Your task to perform on an android device: change the upload size in google photos Image 0: 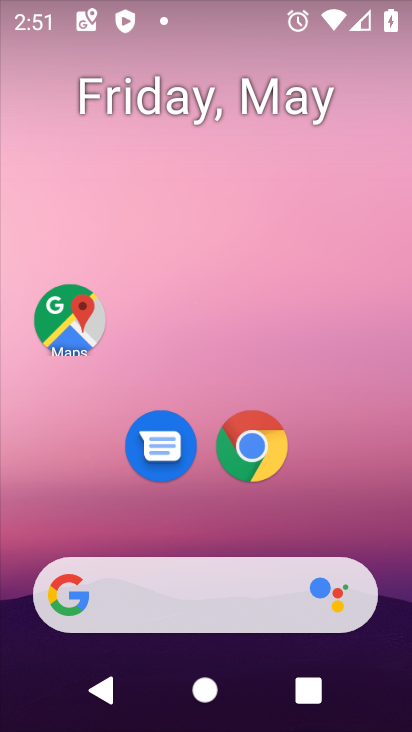
Step 0: drag from (403, 574) to (317, 160)
Your task to perform on an android device: change the upload size in google photos Image 1: 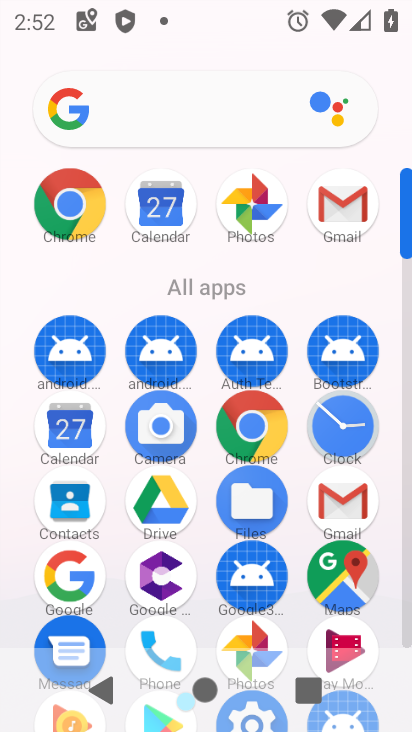
Step 1: click (256, 209)
Your task to perform on an android device: change the upload size in google photos Image 2: 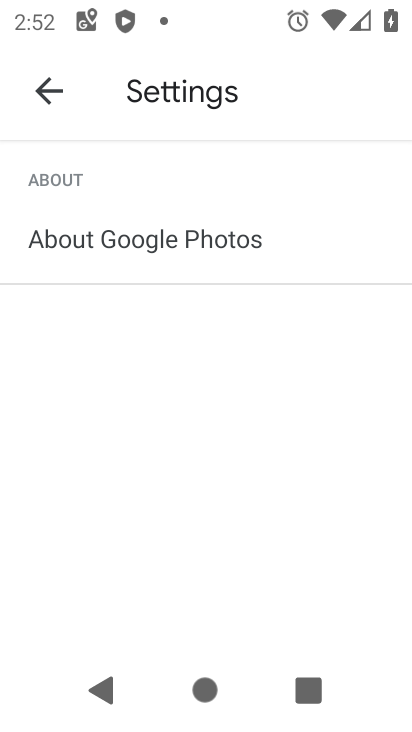
Step 2: click (62, 105)
Your task to perform on an android device: change the upload size in google photos Image 3: 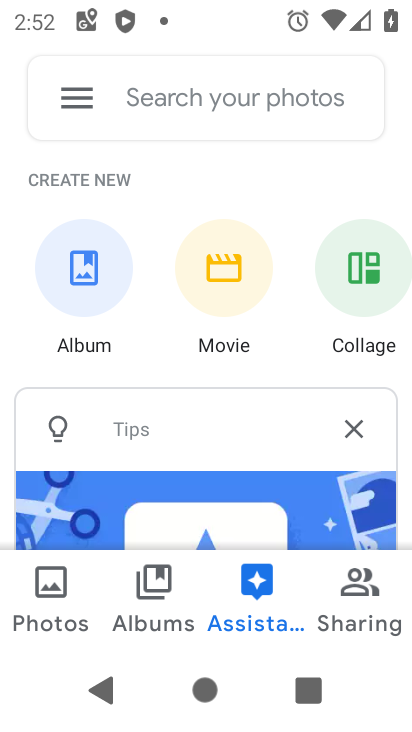
Step 3: click (88, 102)
Your task to perform on an android device: change the upload size in google photos Image 4: 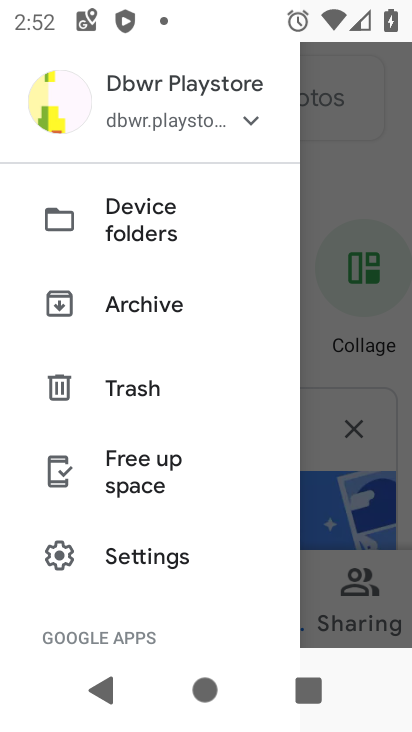
Step 4: click (146, 554)
Your task to perform on an android device: change the upload size in google photos Image 5: 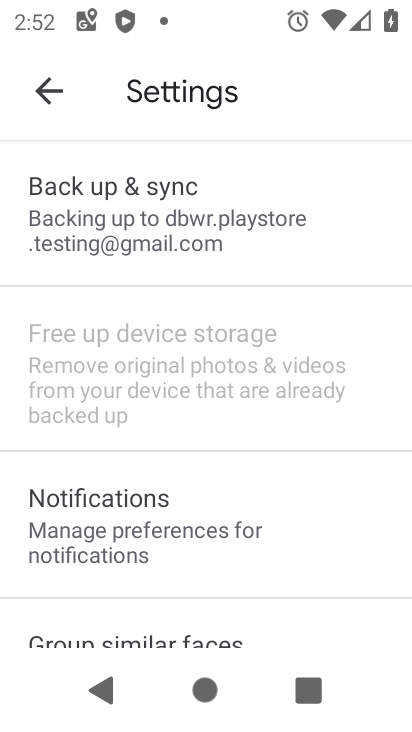
Step 5: drag from (215, 579) to (159, 697)
Your task to perform on an android device: change the upload size in google photos Image 6: 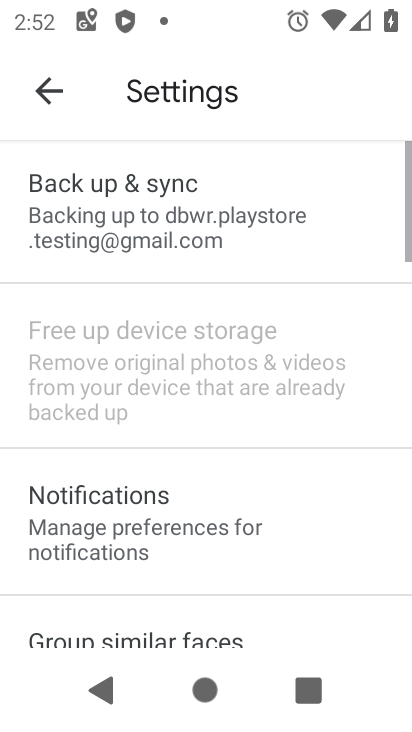
Step 6: click (205, 253)
Your task to perform on an android device: change the upload size in google photos Image 7: 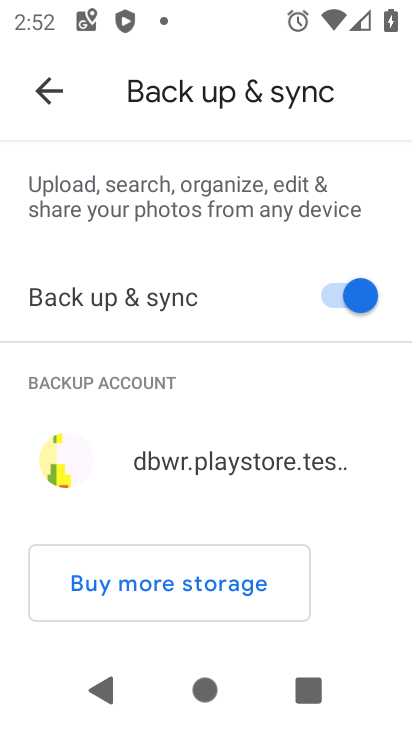
Step 7: drag from (340, 584) to (263, 219)
Your task to perform on an android device: change the upload size in google photos Image 8: 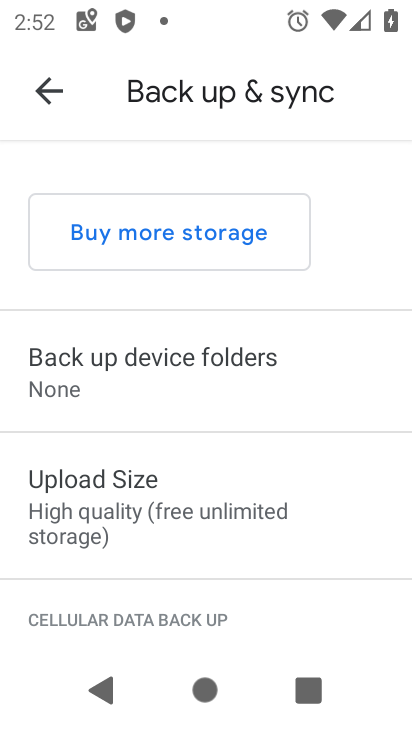
Step 8: click (229, 480)
Your task to perform on an android device: change the upload size in google photos Image 9: 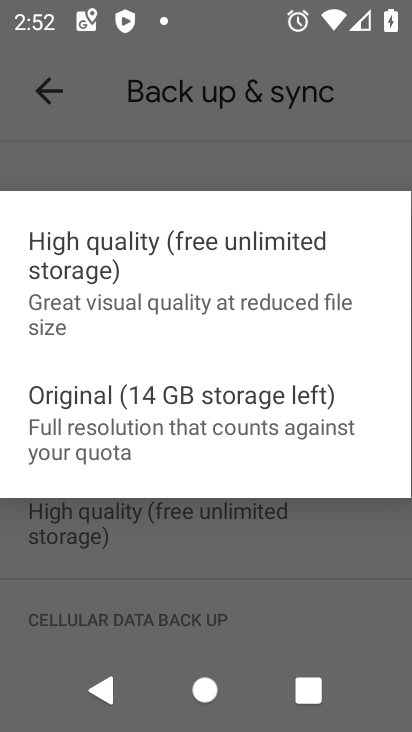
Step 9: click (213, 400)
Your task to perform on an android device: change the upload size in google photos Image 10: 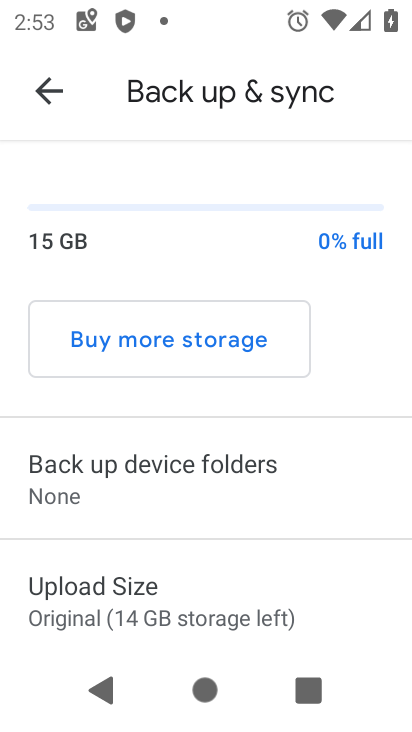
Step 10: task complete